Your task to perform on an android device: change alarm snooze length Image 0: 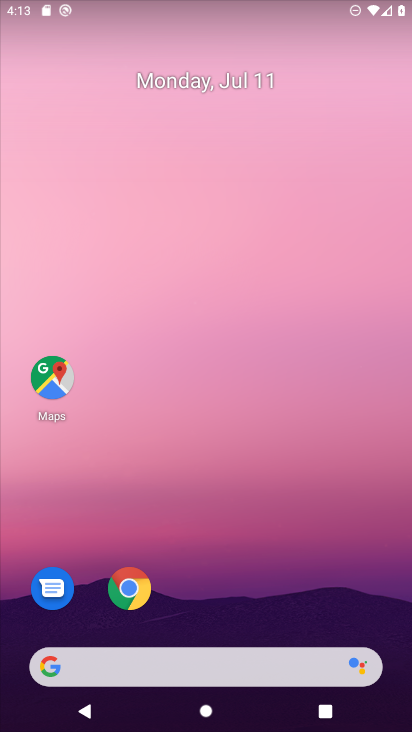
Step 0: press home button
Your task to perform on an android device: change alarm snooze length Image 1: 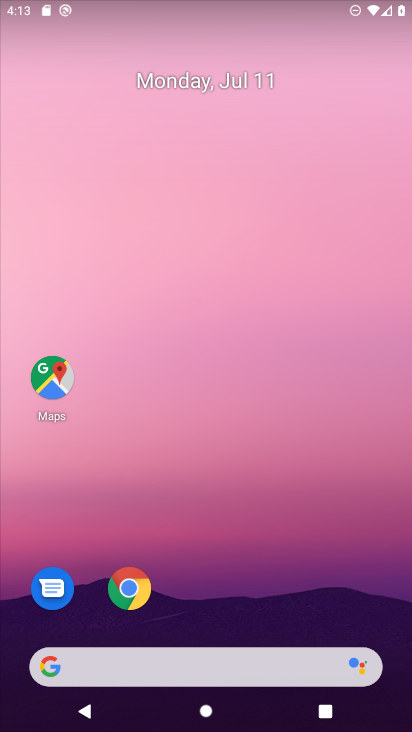
Step 1: drag from (268, 583) to (323, 32)
Your task to perform on an android device: change alarm snooze length Image 2: 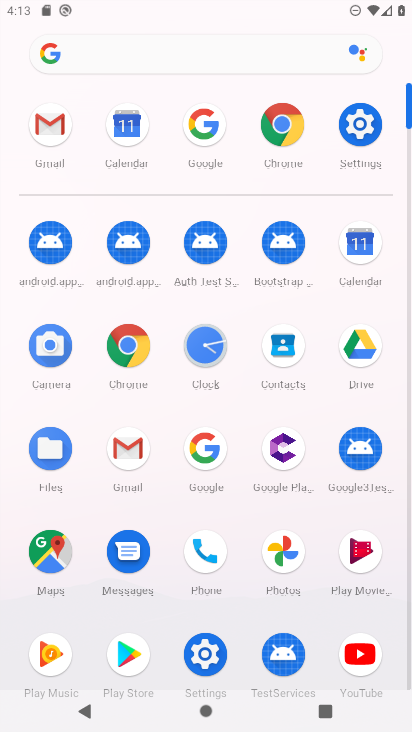
Step 2: click (204, 339)
Your task to perform on an android device: change alarm snooze length Image 3: 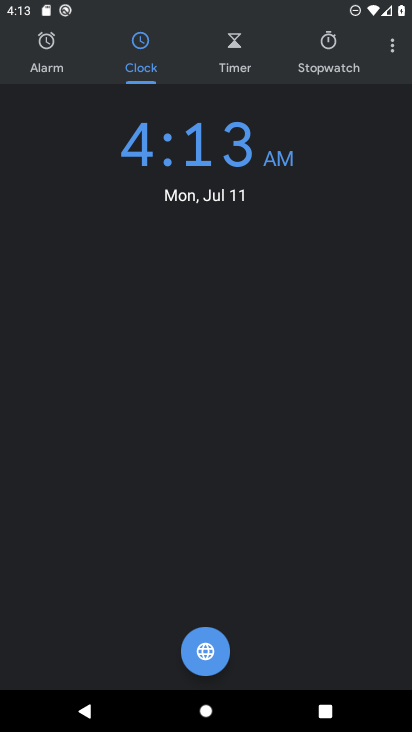
Step 3: click (393, 49)
Your task to perform on an android device: change alarm snooze length Image 4: 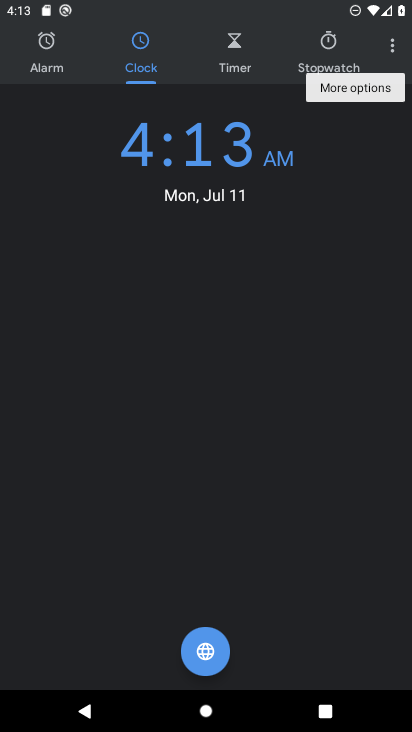
Step 4: click (398, 56)
Your task to perform on an android device: change alarm snooze length Image 5: 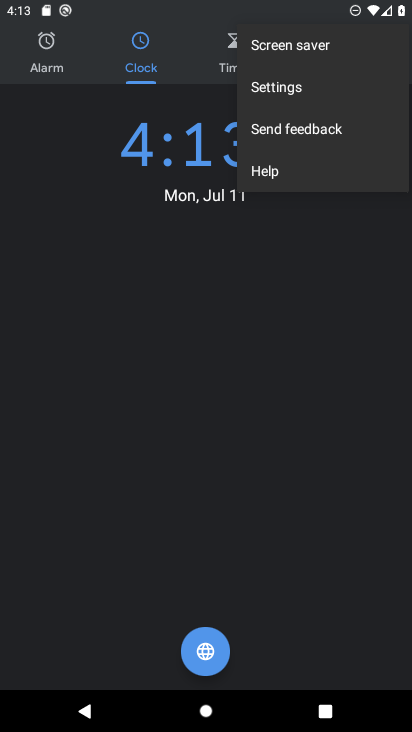
Step 5: click (288, 85)
Your task to perform on an android device: change alarm snooze length Image 6: 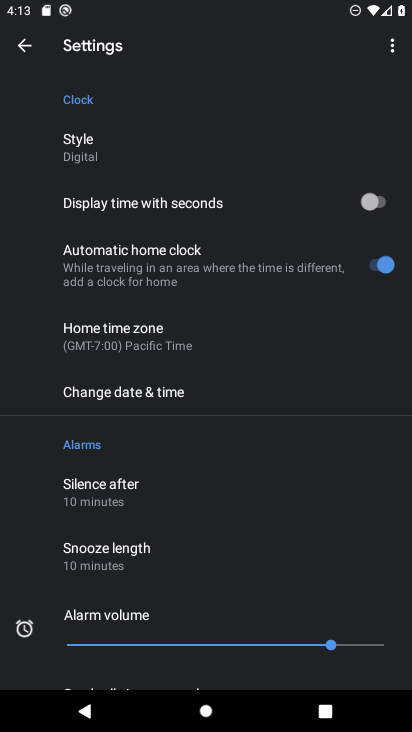
Step 6: click (128, 556)
Your task to perform on an android device: change alarm snooze length Image 7: 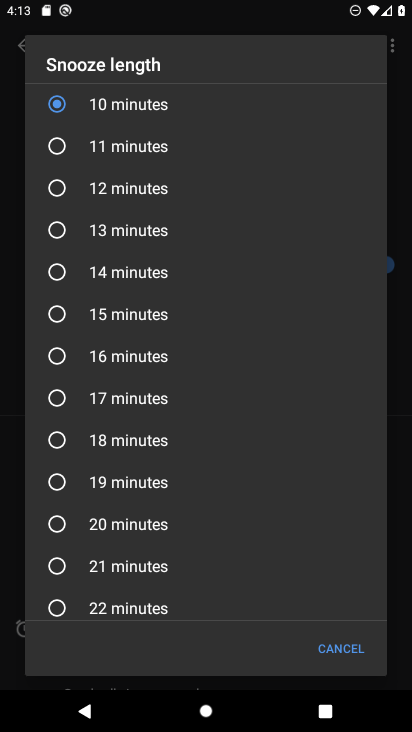
Step 7: click (113, 188)
Your task to perform on an android device: change alarm snooze length Image 8: 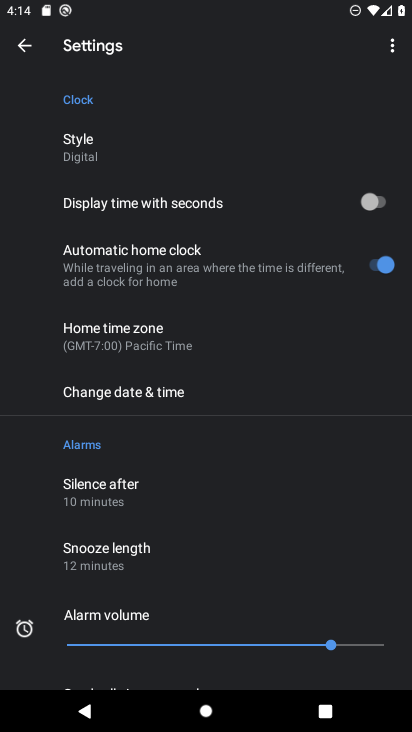
Step 8: task complete